Your task to perform on an android device: find which apps use the phone's location Image 0: 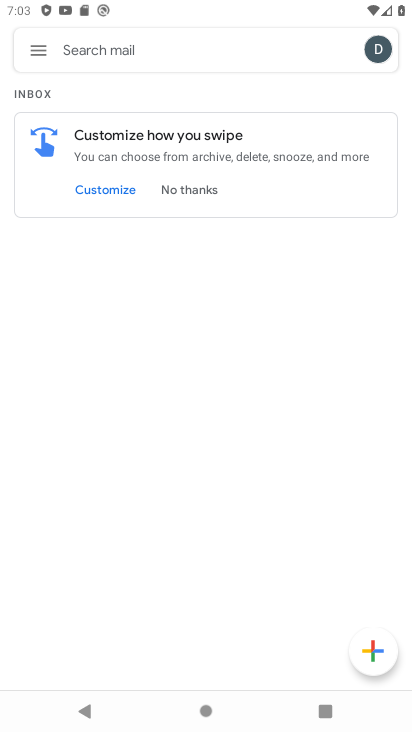
Step 0: press home button
Your task to perform on an android device: find which apps use the phone's location Image 1: 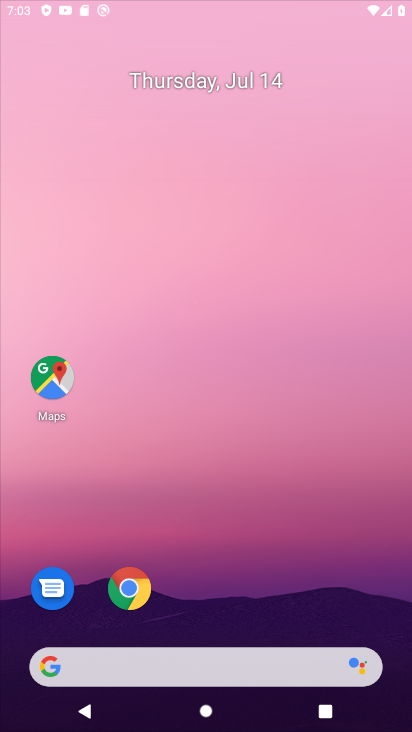
Step 1: drag from (361, 683) to (196, 68)
Your task to perform on an android device: find which apps use the phone's location Image 2: 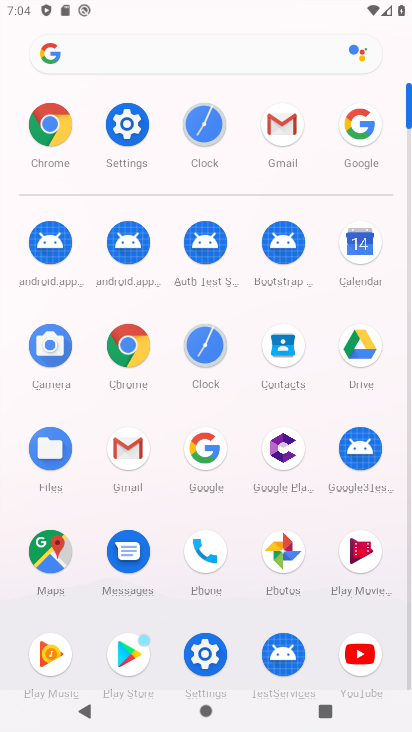
Step 2: click (112, 145)
Your task to perform on an android device: find which apps use the phone's location Image 3: 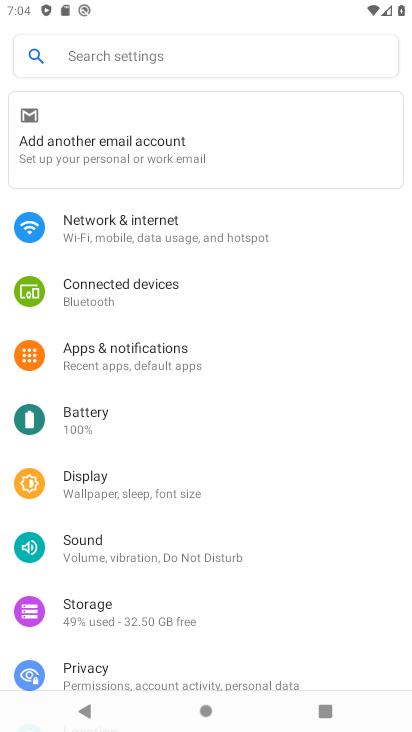
Step 3: drag from (105, 636) to (155, 185)
Your task to perform on an android device: find which apps use the phone's location Image 4: 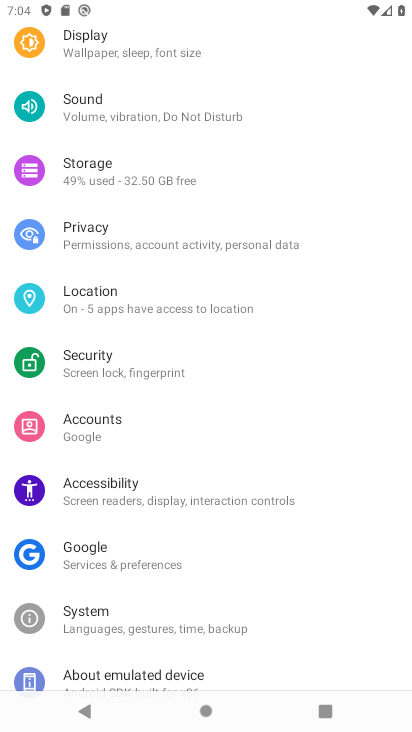
Step 4: click (101, 306)
Your task to perform on an android device: find which apps use the phone's location Image 5: 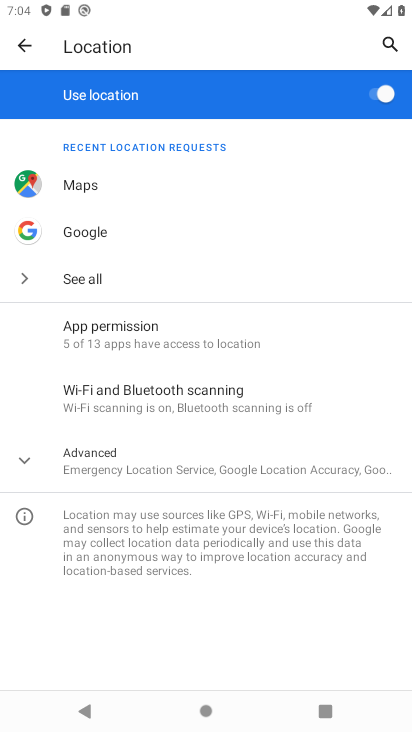
Step 5: click (184, 321)
Your task to perform on an android device: find which apps use the phone's location Image 6: 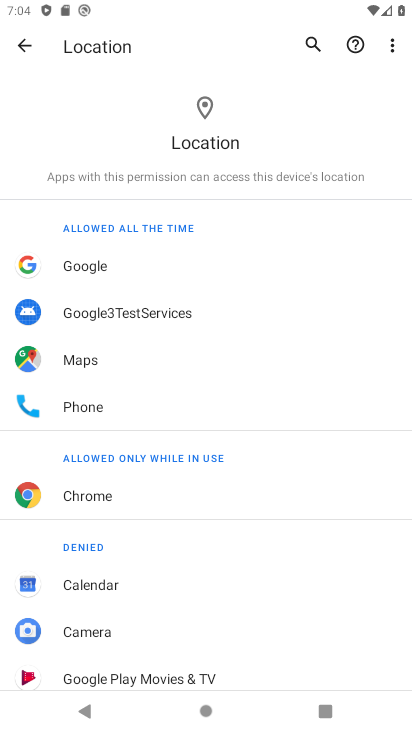
Step 6: click (93, 411)
Your task to perform on an android device: find which apps use the phone's location Image 7: 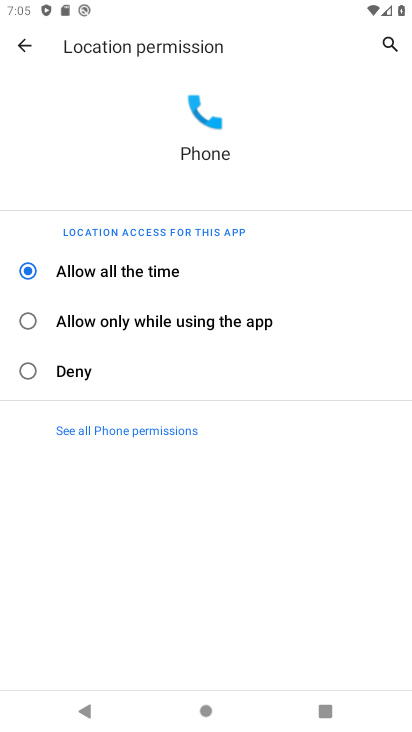
Step 7: task complete